Your task to perform on an android device: set the timer Image 0: 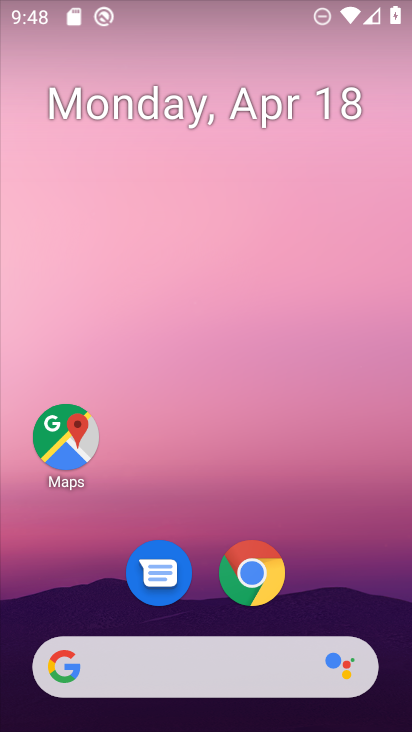
Step 0: drag from (359, 583) to (248, 22)
Your task to perform on an android device: set the timer Image 1: 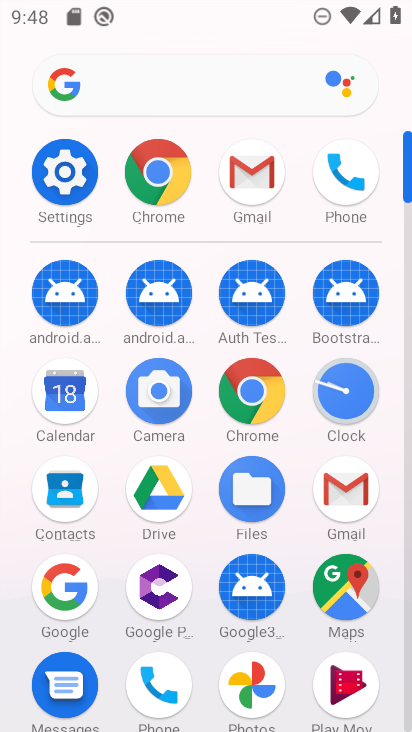
Step 1: click (361, 381)
Your task to perform on an android device: set the timer Image 2: 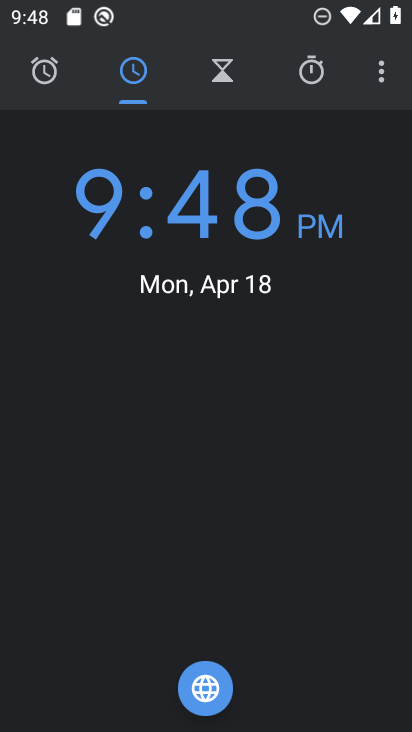
Step 2: click (388, 70)
Your task to perform on an android device: set the timer Image 3: 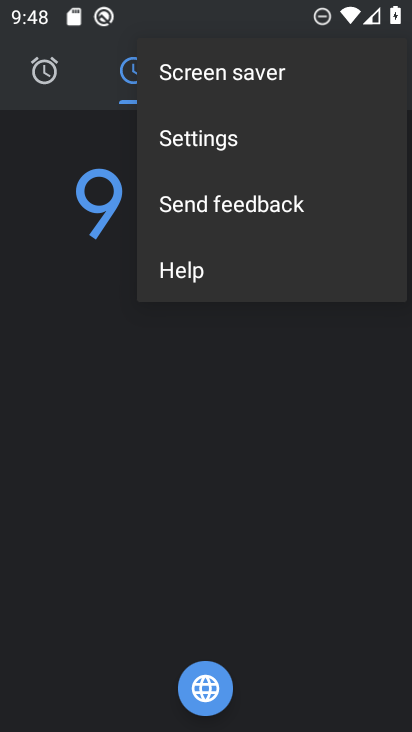
Step 3: click (209, 146)
Your task to perform on an android device: set the timer Image 4: 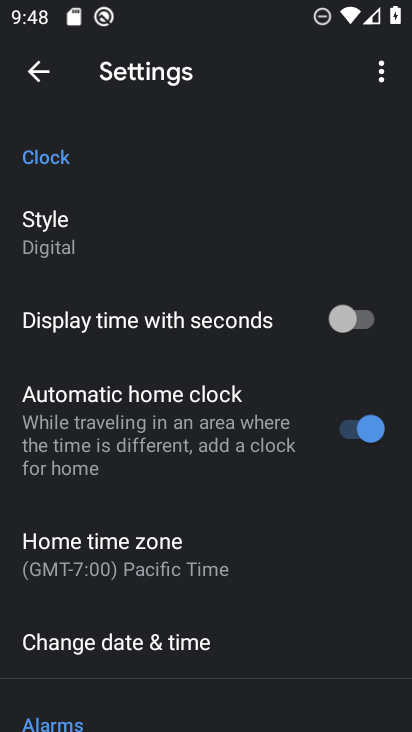
Step 4: click (203, 563)
Your task to perform on an android device: set the timer Image 5: 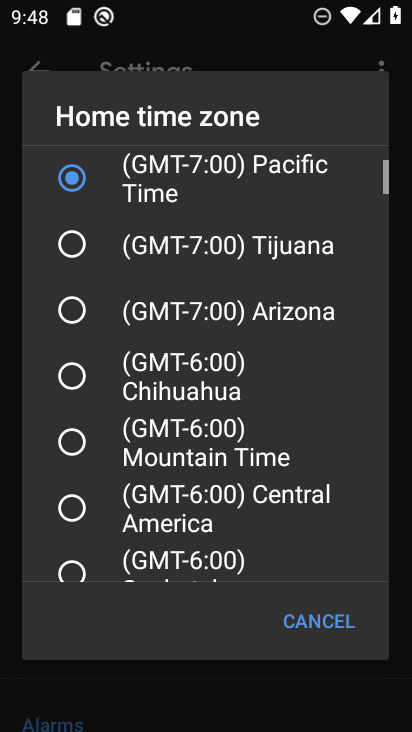
Step 5: click (203, 372)
Your task to perform on an android device: set the timer Image 6: 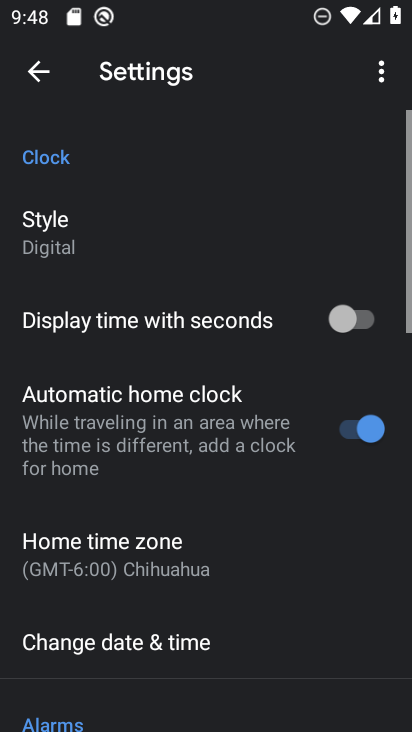
Step 6: task complete